Your task to perform on an android device: turn on airplane mode Image 0: 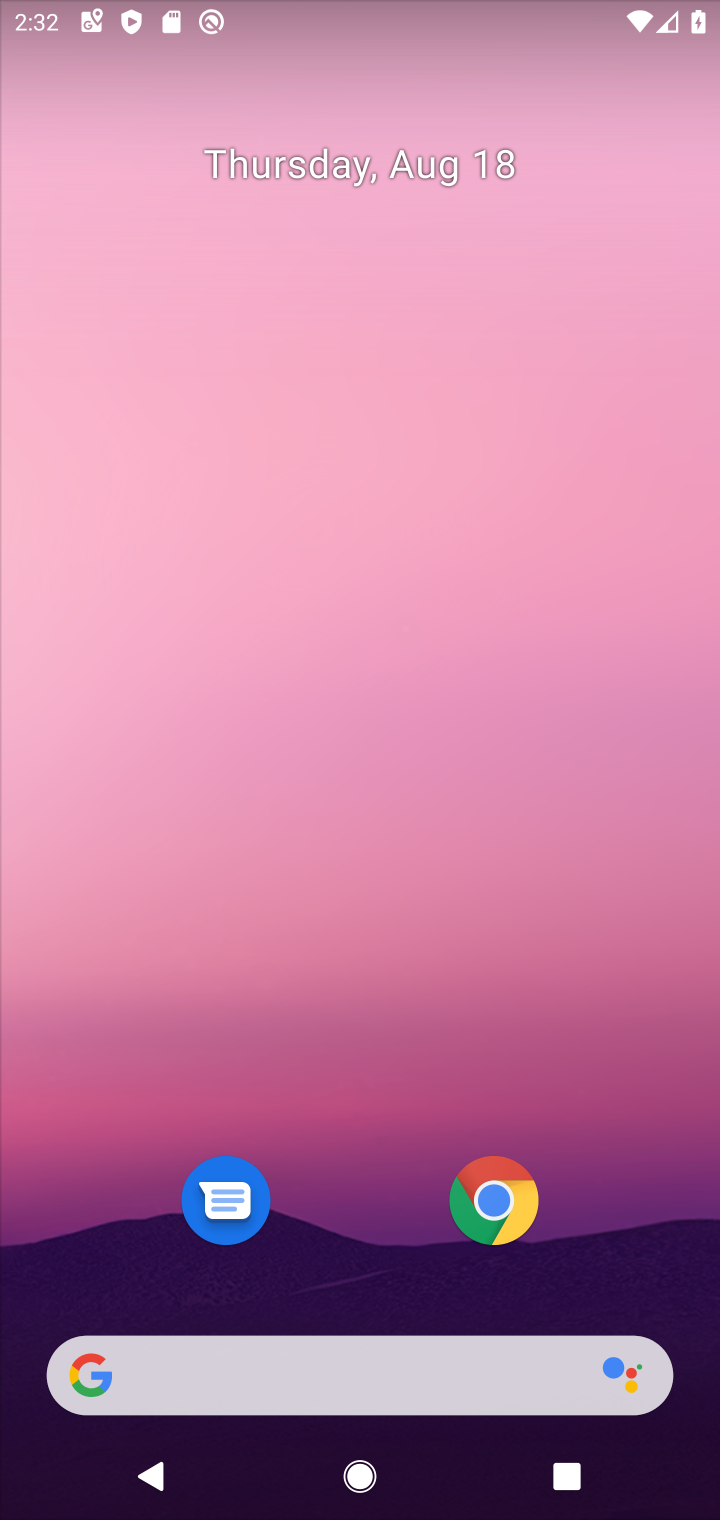
Step 0: drag from (273, 47) to (277, 817)
Your task to perform on an android device: turn on airplane mode Image 1: 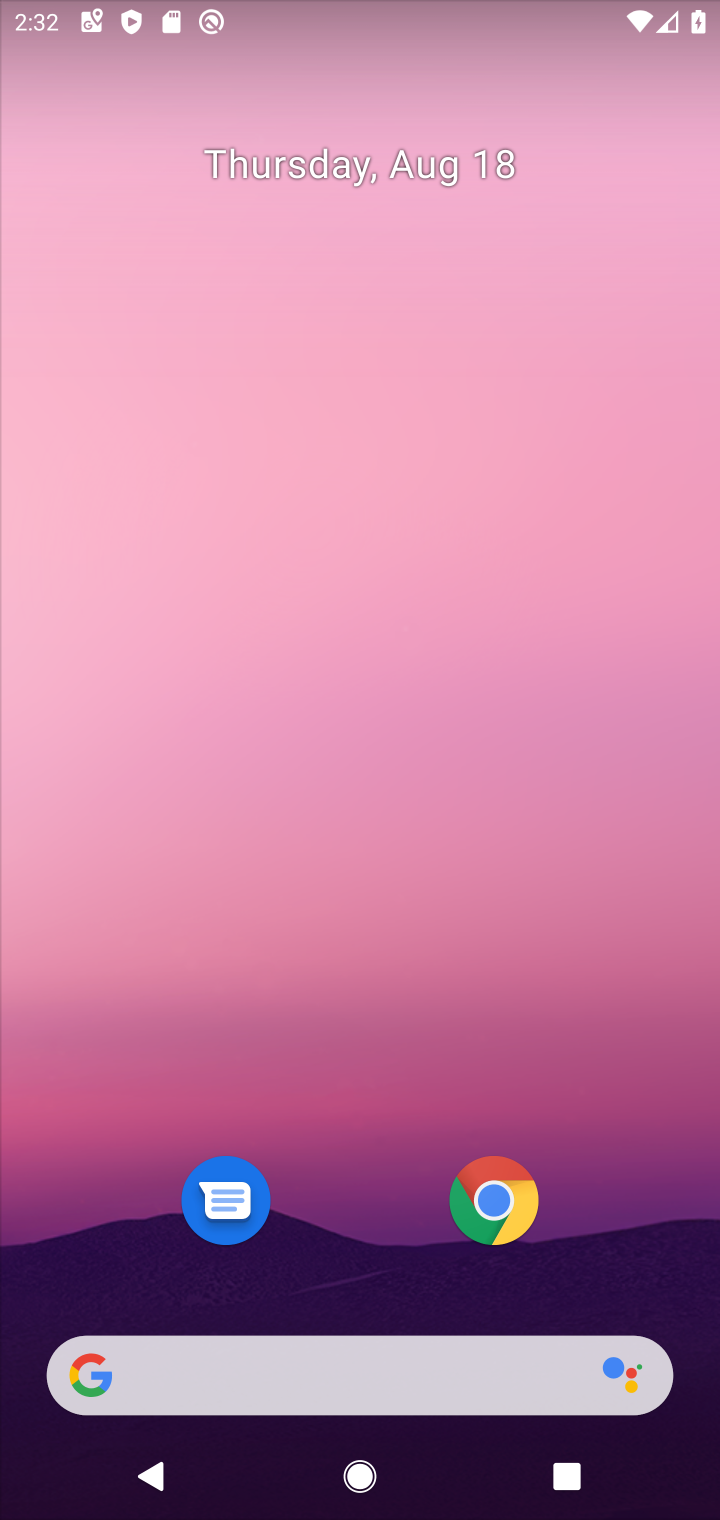
Step 1: drag from (312, 12) to (333, 1445)
Your task to perform on an android device: turn on airplane mode Image 2: 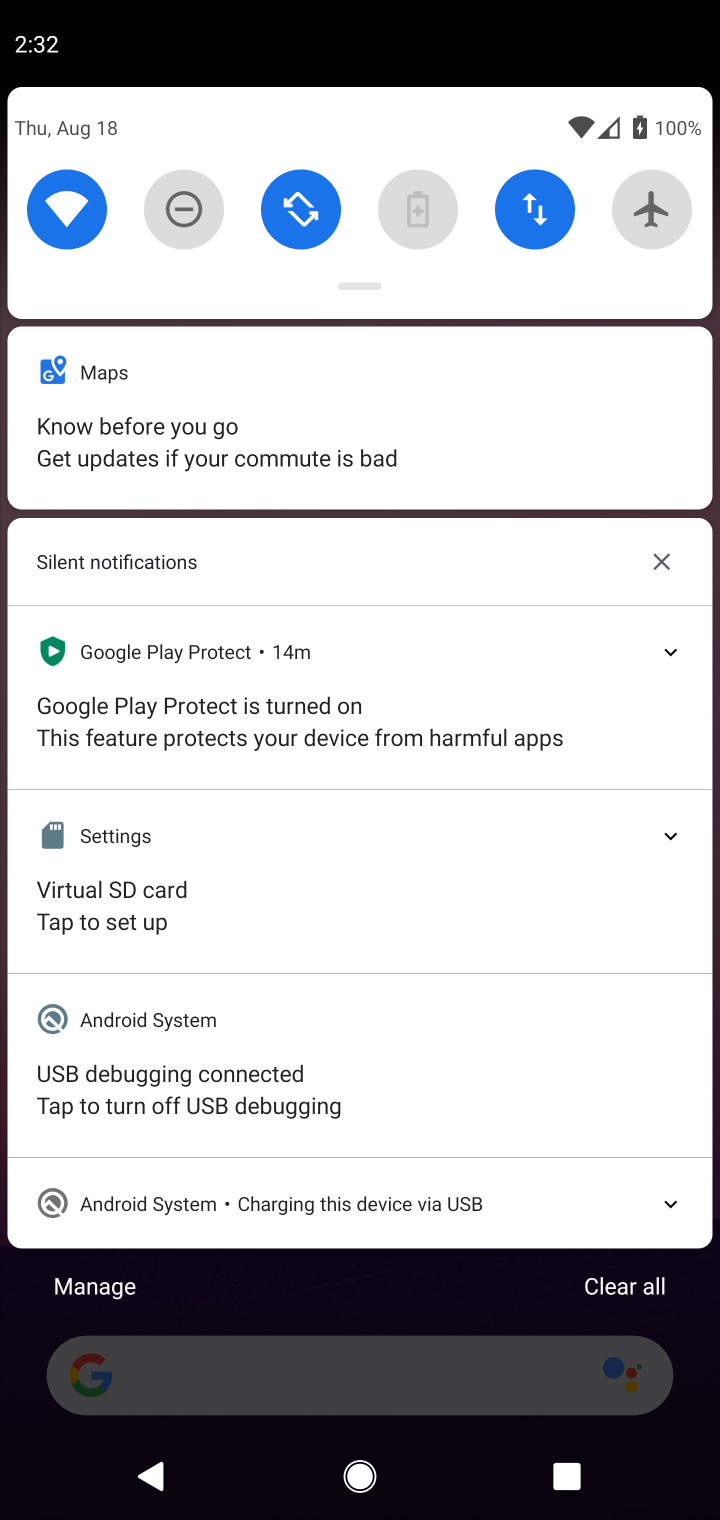
Step 2: click (655, 176)
Your task to perform on an android device: turn on airplane mode Image 3: 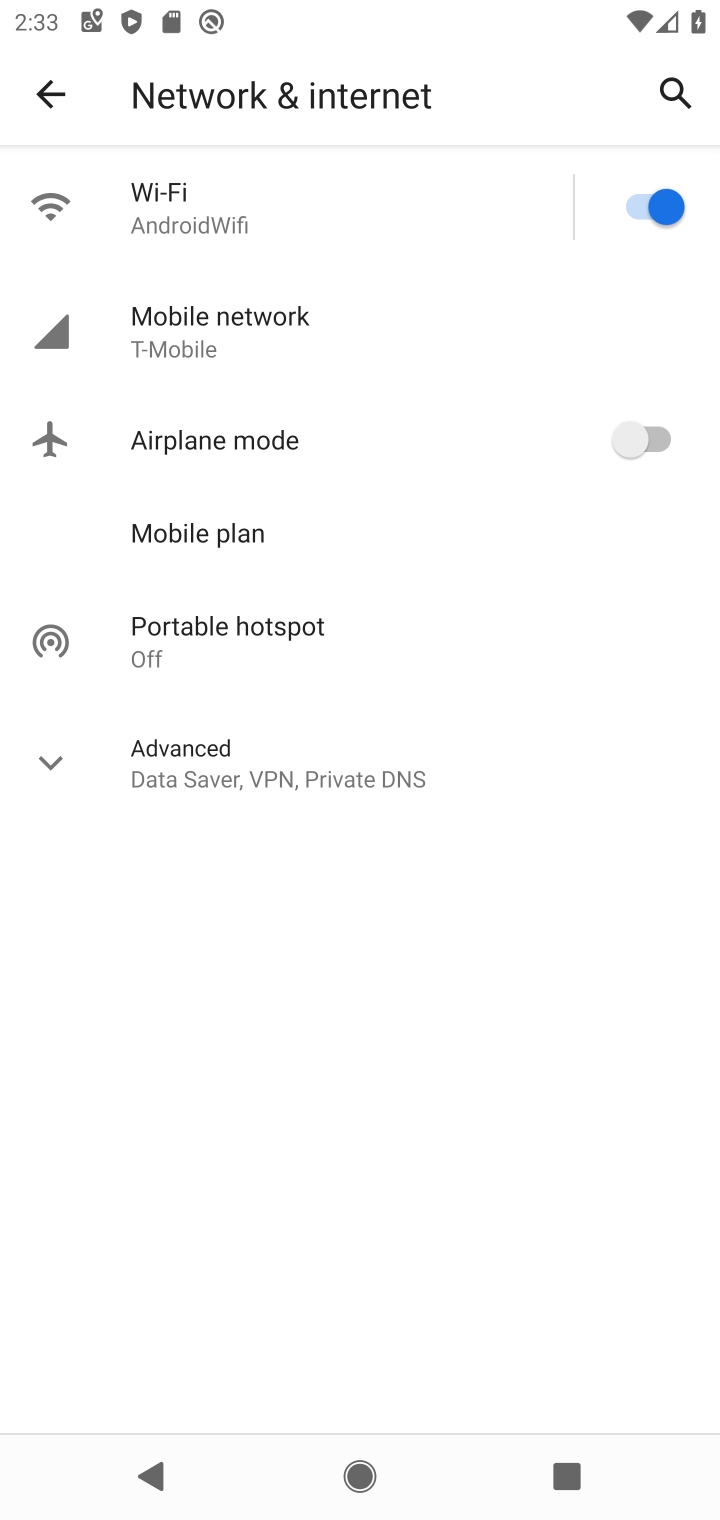
Step 3: click (620, 410)
Your task to perform on an android device: turn on airplane mode Image 4: 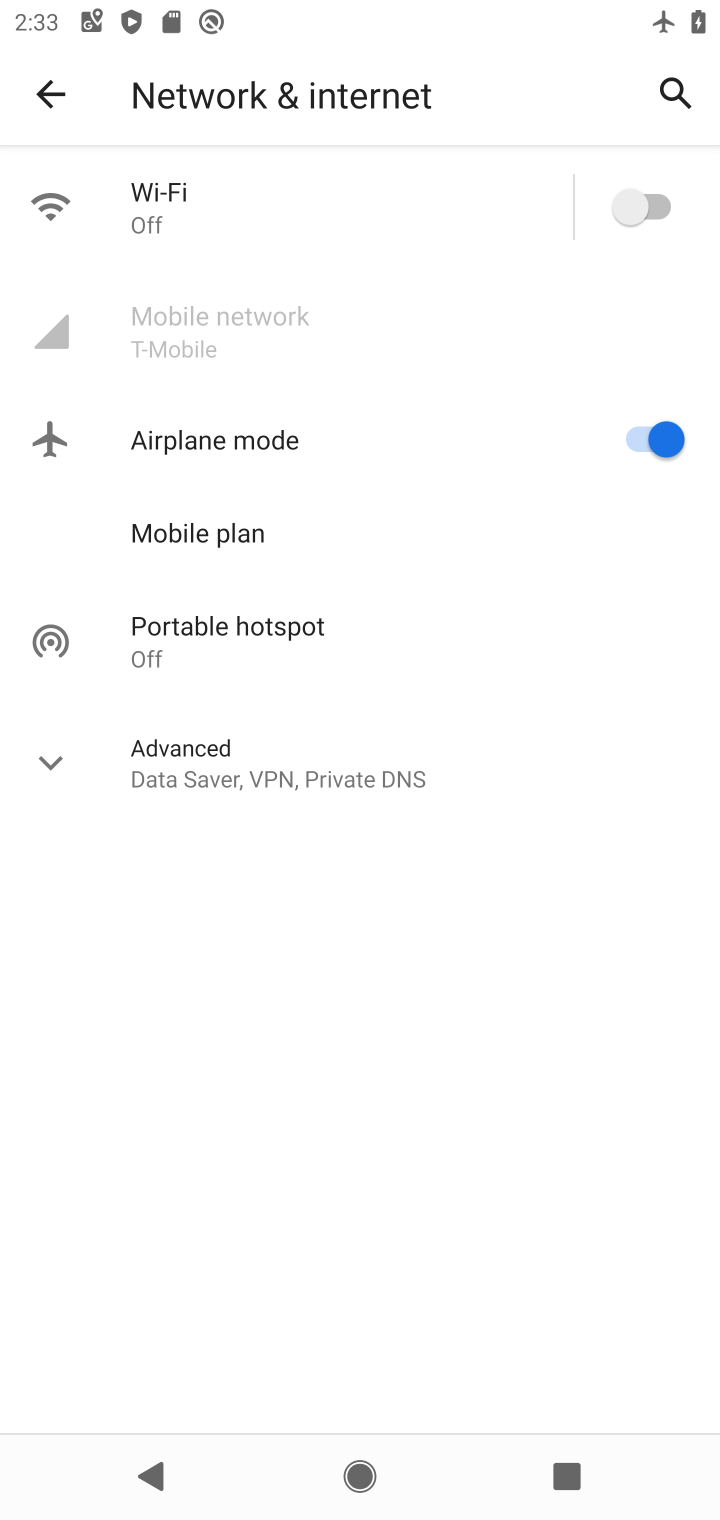
Step 4: task complete